Your task to perform on an android device: install app "WhatsApp Messenger" Image 0: 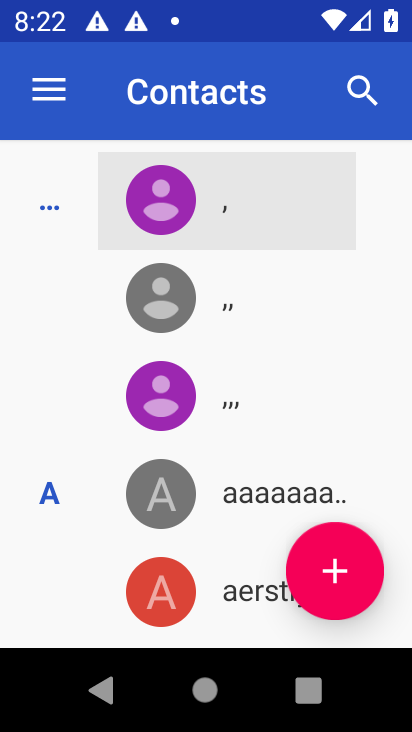
Step 0: press home button
Your task to perform on an android device: install app "WhatsApp Messenger" Image 1: 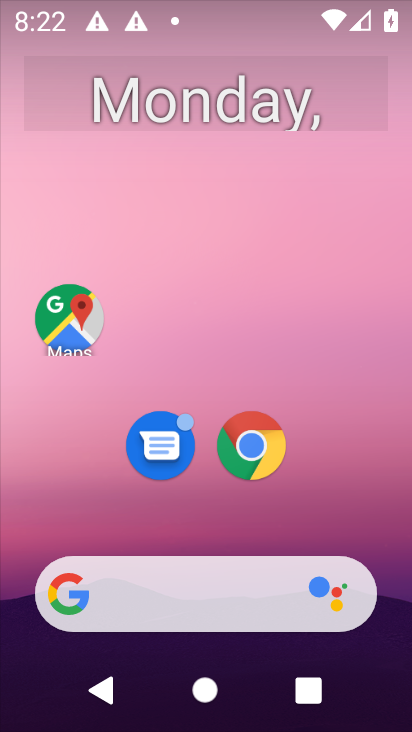
Step 1: drag from (383, 629) to (190, 63)
Your task to perform on an android device: install app "WhatsApp Messenger" Image 2: 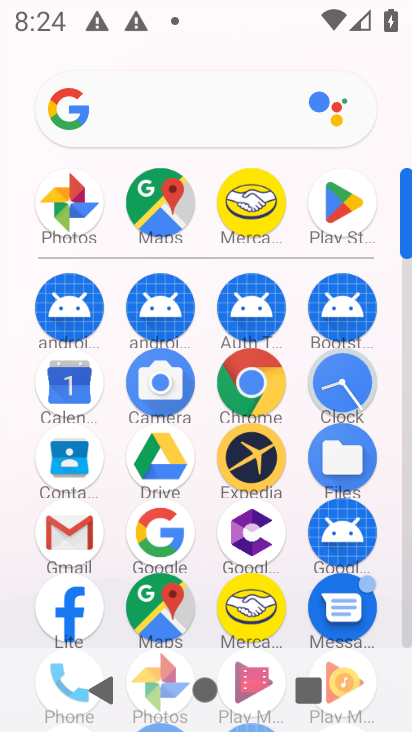
Step 2: click (347, 215)
Your task to perform on an android device: install app "WhatsApp Messenger" Image 3: 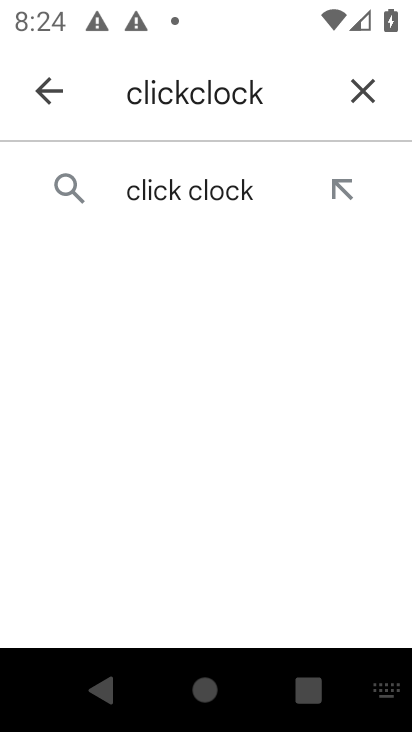
Step 3: press back button
Your task to perform on an android device: install app "WhatsApp Messenger" Image 4: 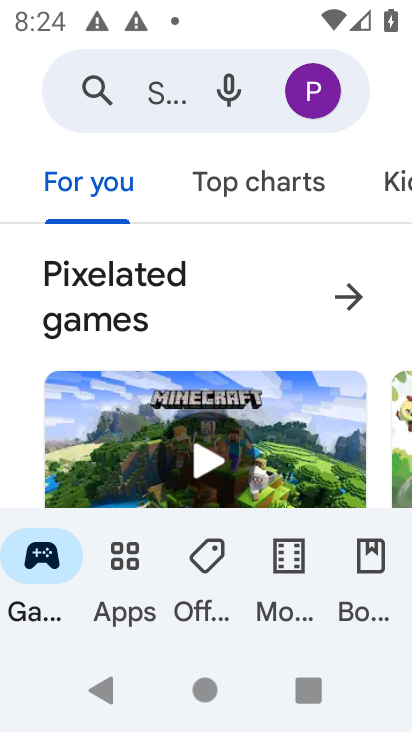
Step 4: click (146, 87)
Your task to perform on an android device: install app "WhatsApp Messenger" Image 5: 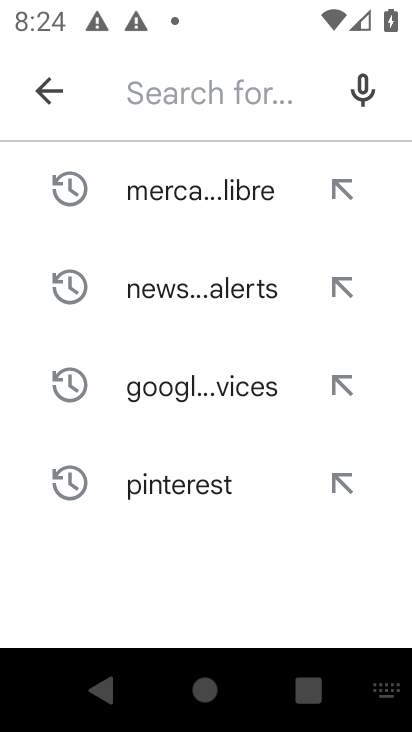
Step 5: type "WhatsApp Messenger"
Your task to perform on an android device: install app "WhatsApp Messenger" Image 6: 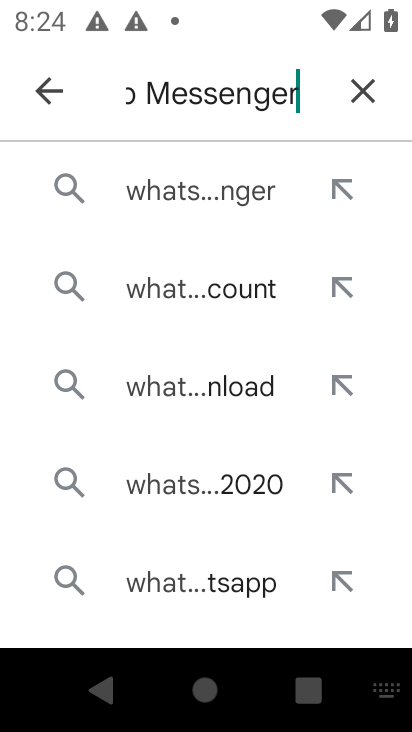
Step 6: click (162, 192)
Your task to perform on an android device: install app "WhatsApp Messenger" Image 7: 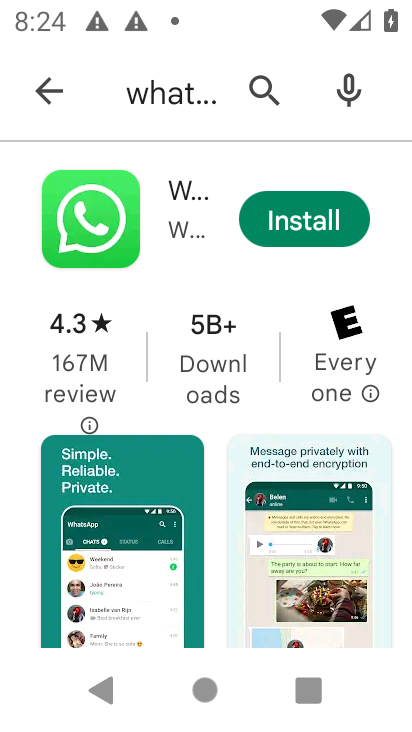
Step 7: click (321, 223)
Your task to perform on an android device: install app "WhatsApp Messenger" Image 8: 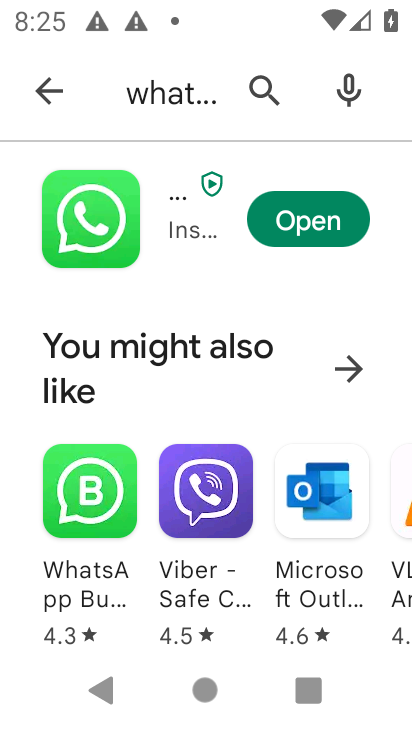
Step 8: task complete